Your task to perform on an android device: turn on data saver in the chrome app Image 0: 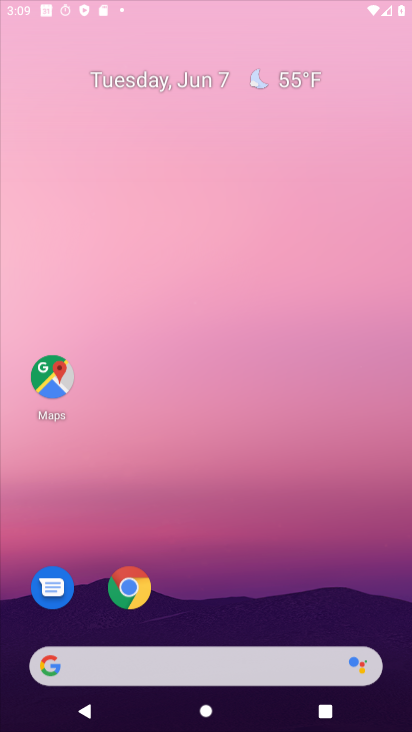
Step 0: press home button
Your task to perform on an android device: turn on data saver in the chrome app Image 1: 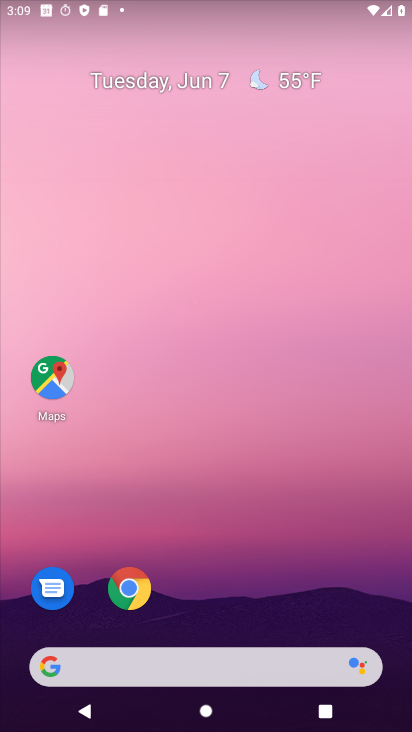
Step 1: click (128, 588)
Your task to perform on an android device: turn on data saver in the chrome app Image 2: 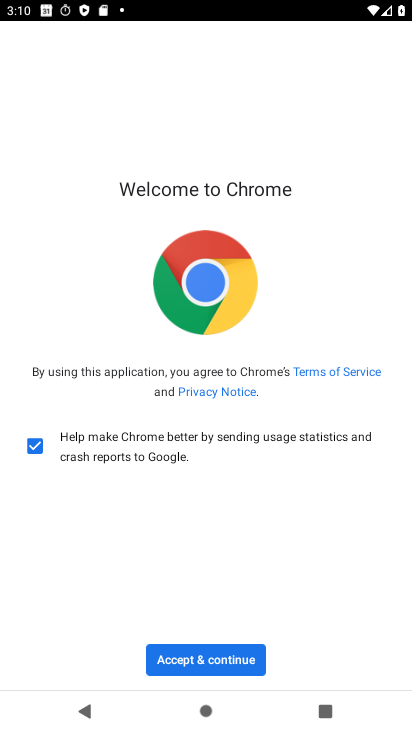
Step 2: click (203, 663)
Your task to perform on an android device: turn on data saver in the chrome app Image 3: 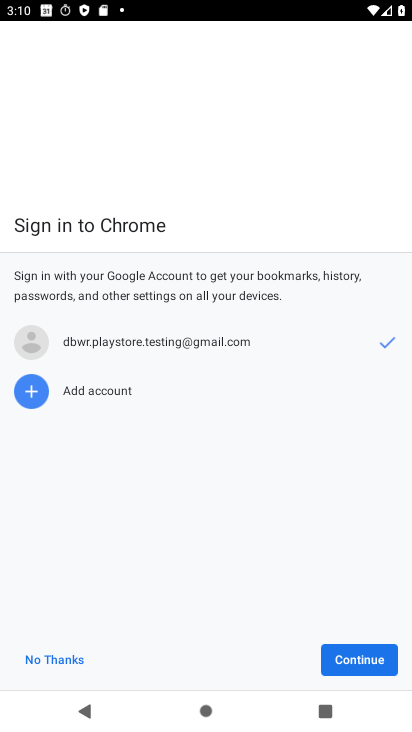
Step 3: click (384, 664)
Your task to perform on an android device: turn on data saver in the chrome app Image 4: 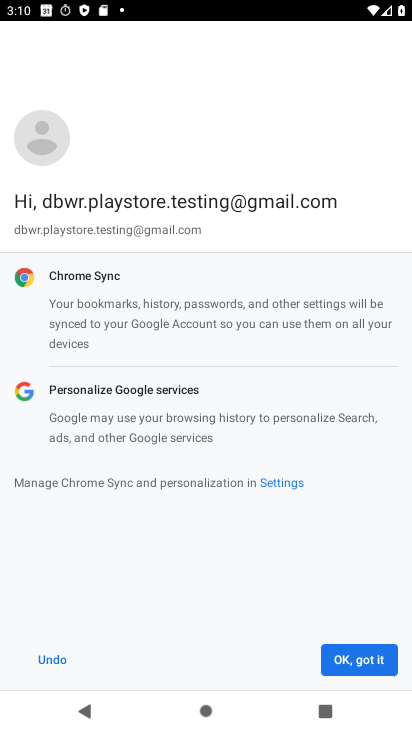
Step 4: click (380, 659)
Your task to perform on an android device: turn on data saver in the chrome app Image 5: 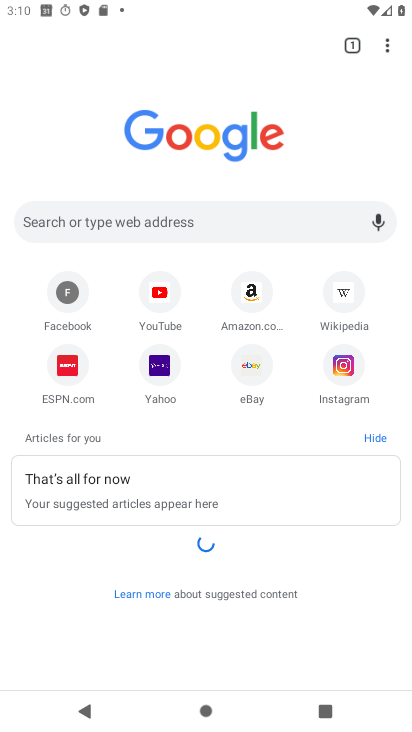
Step 5: drag from (388, 42) to (219, 377)
Your task to perform on an android device: turn on data saver in the chrome app Image 6: 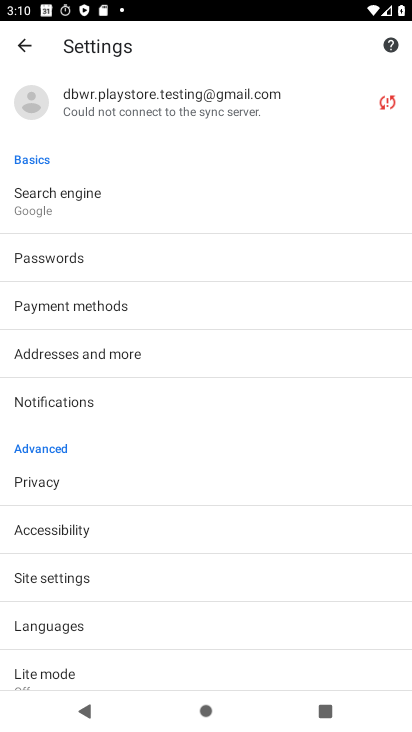
Step 6: drag from (156, 662) to (190, 366)
Your task to perform on an android device: turn on data saver in the chrome app Image 7: 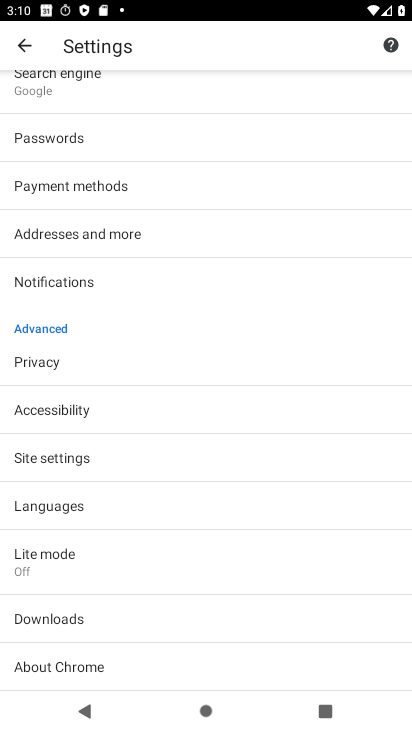
Step 7: click (61, 567)
Your task to perform on an android device: turn on data saver in the chrome app Image 8: 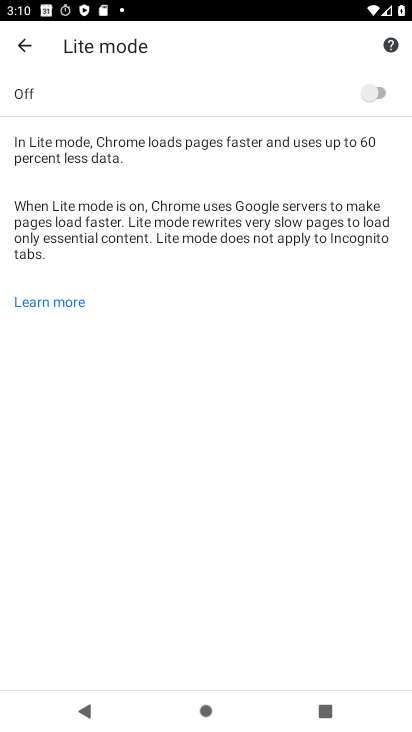
Step 8: click (372, 90)
Your task to perform on an android device: turn on data saver in the chrome app Image 9: 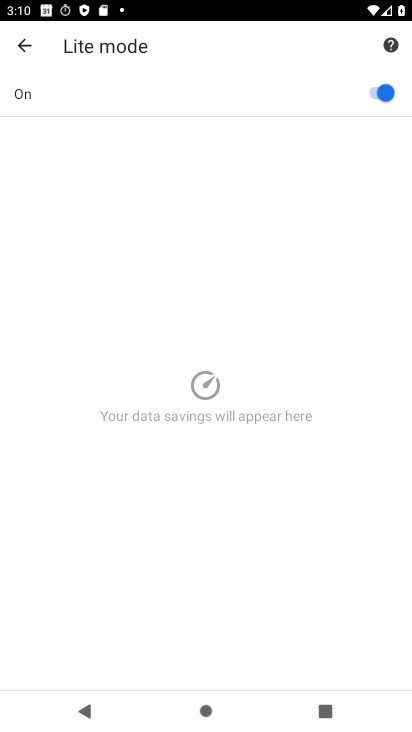
Step 9: task complete